Your task to perform on an android device: Open my contact list Image 0: 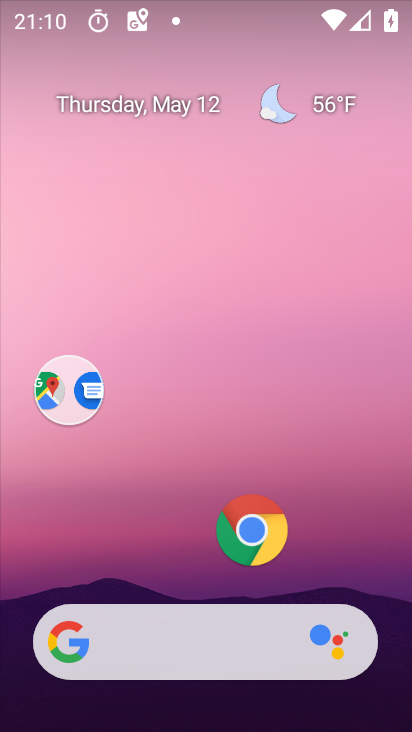
Step 0: drag from (184, 526) to (166, 83)
Your task to perform on an android device: Open my contact list Image 1: 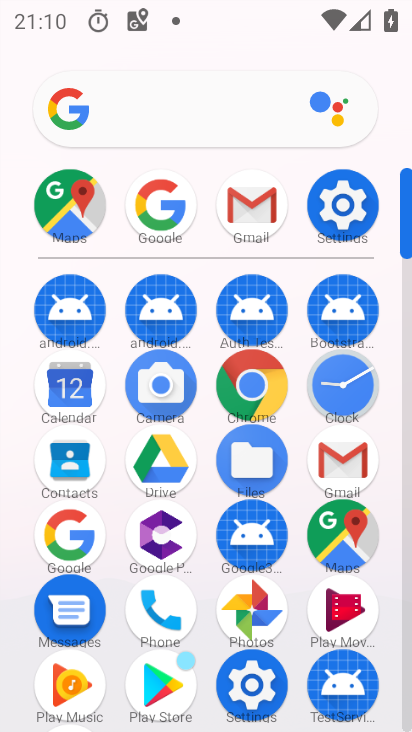
Step 1: click (71, 465)
Your task to perform on an android device: Open my contact list Image 2: 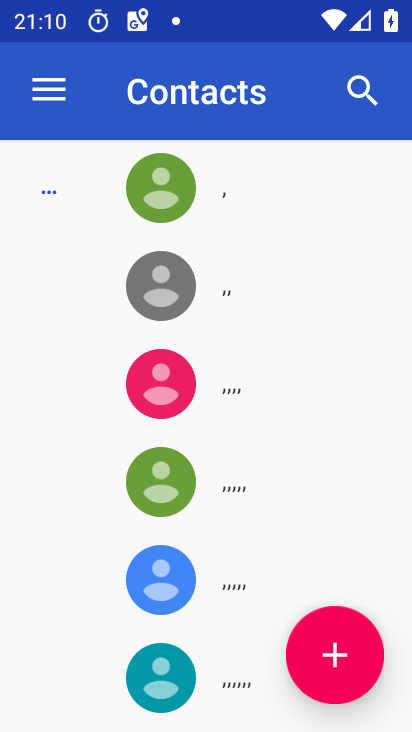
Step 2: task complete